Your task to perform on an android device: add a contact in the contacts app Image 0: 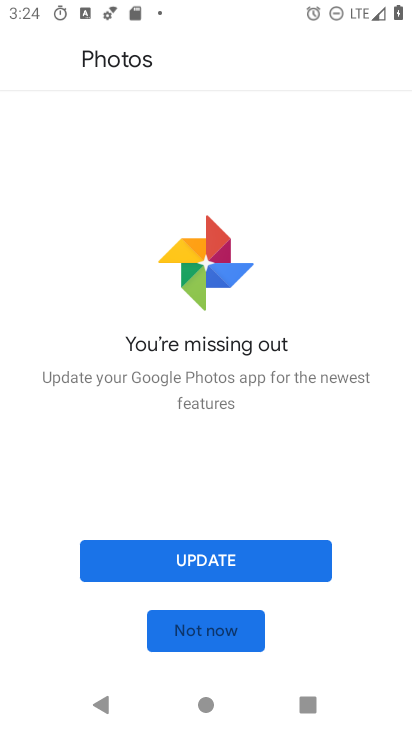
Step 0: press home button
Your task to perform on an android device: add a contact in the contacts app Image 1: 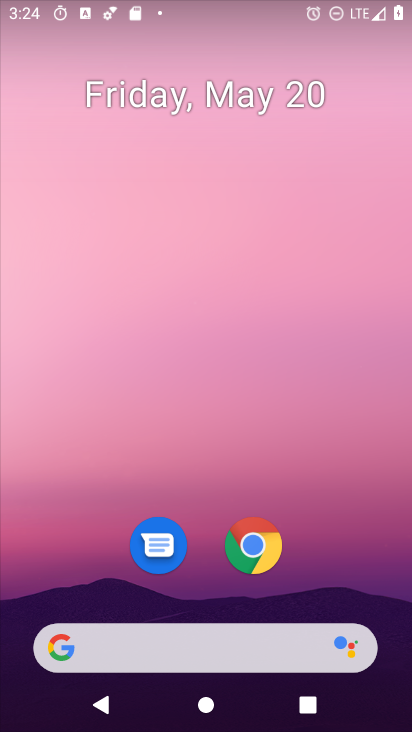
Step 1: drag from (328, 655) to (330, 44)
Your task to perform on an android device: add a contact in the contacts app Image 2: 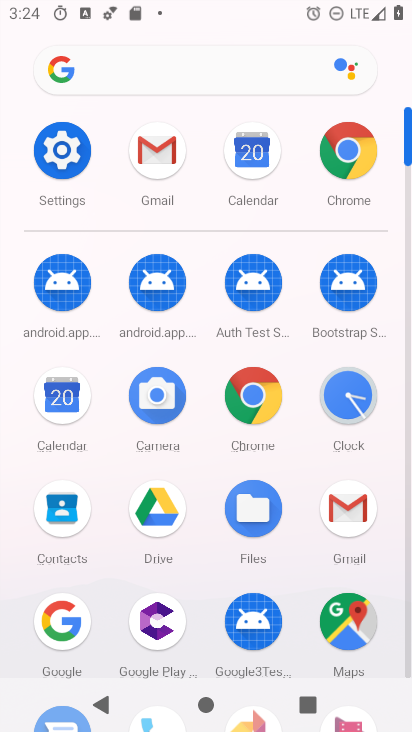
Step 2: click (48, 519)
Your task to perform on an android device: add a contact in the contacts app Image 3: 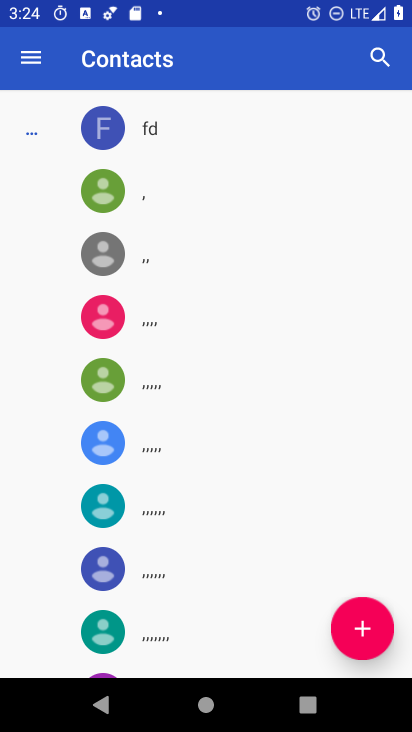
Step 3: click (361, 635)
Your task to perform on an android device: add a contact in the contacts app Image 4: 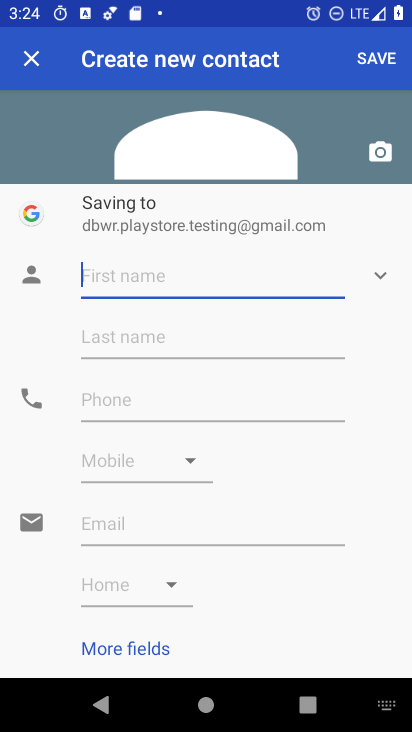
Step 4: type "hhgjfj"
Your task to perform on an android device: add a contact in the contacts app Image 5: 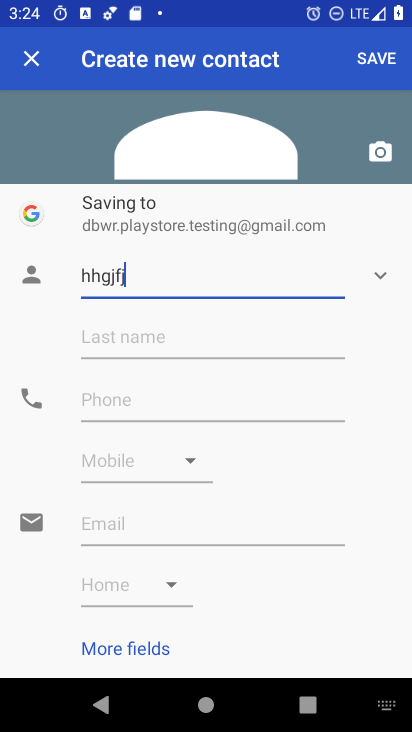
Step 5: click (187, 401)
Your task to perform on an android device: add a contact in the contacts app Image 6: 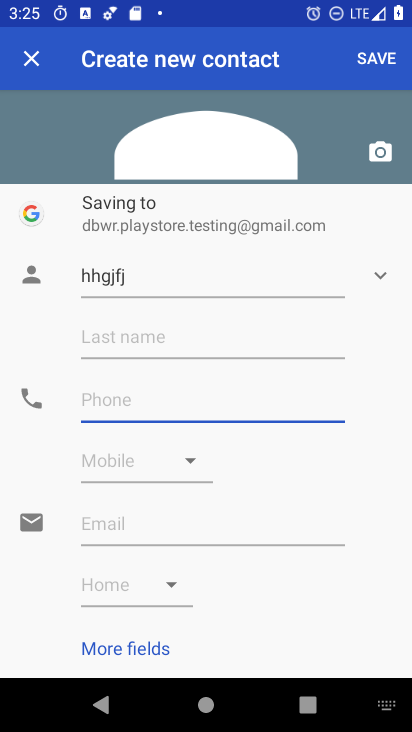
Step 6: type "98987667788"
Your task to perform on an android device: add a contact in the contacts app Image 7: 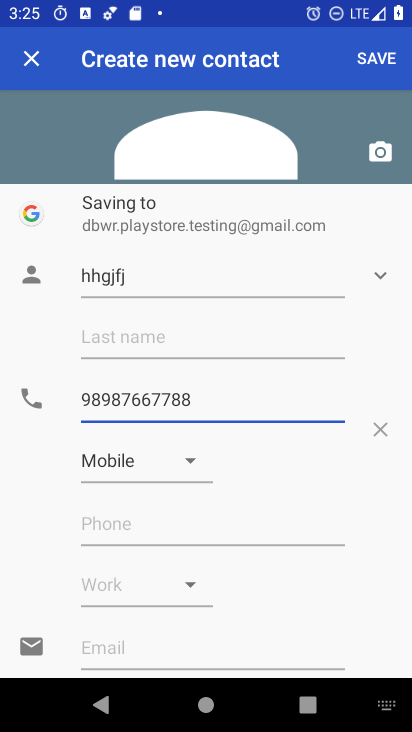
Step 7: click (384, 54)
Your task to perform on an android device: add a contact in the contacts app Image 8: 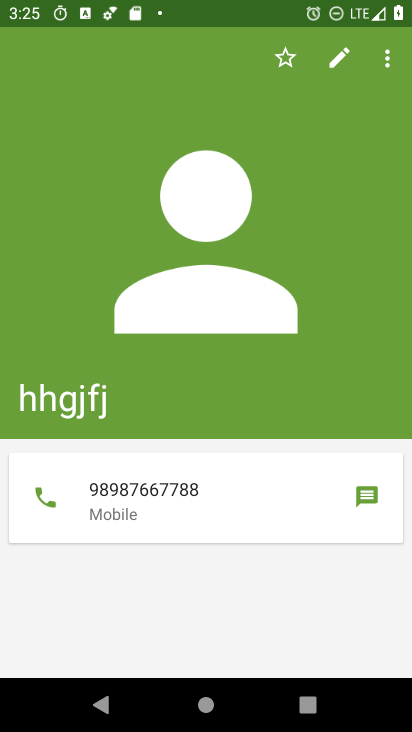
Step 8: task complete